Your task to perform on an android device: check the backup settings in the google photos Image 0: 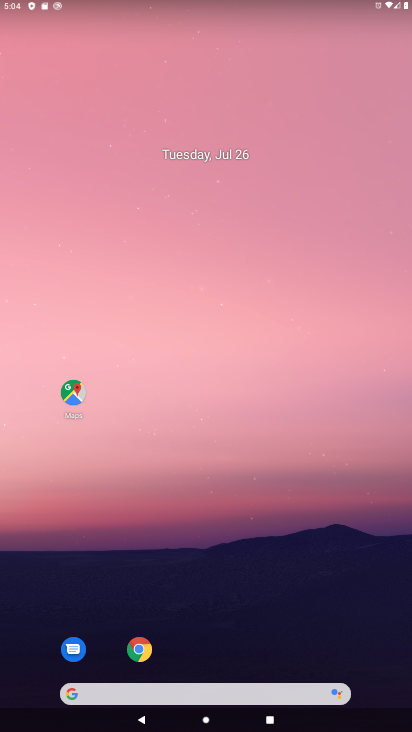
Step 0: drag from (266, 610) to (215, 171)
Your task to perform on an android device: check the backup settings in the google photos Image 1: 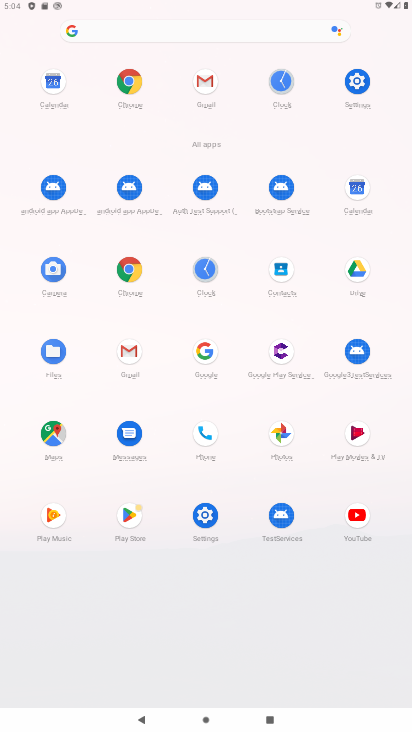
Step 1: click (284, 433)
Your task to perform on an android device: check the backup settings in the google photos Image 2: 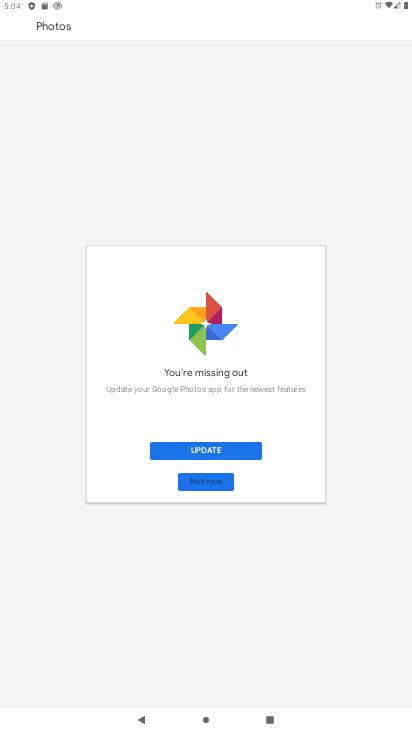
Step 2: click (220, 484)
Your task to perform on an android device: check the backup settings in the google photos Image 3: 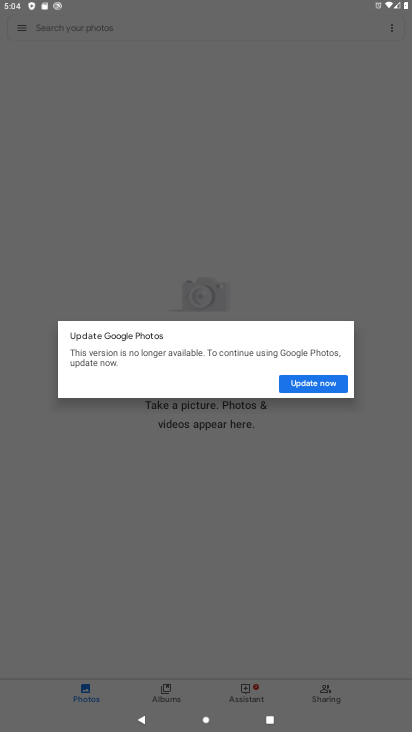
Step 3: click (319, 381)
Your task to perform on an android device: check the backup settings in the google photos Image 4: 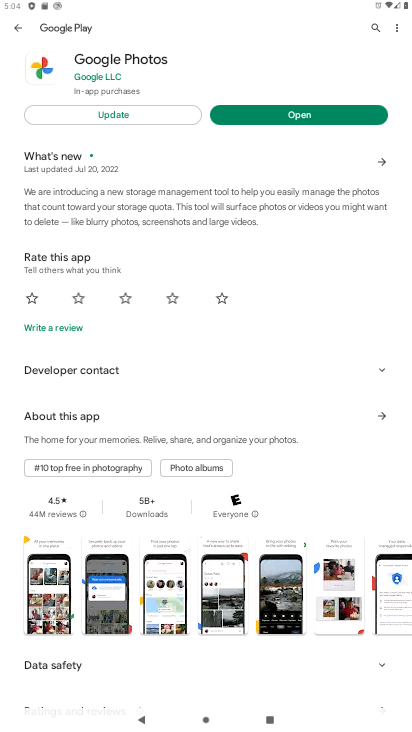
Step 4: click (139, 115)
Your task to perform on an android device: check the backup settings in the google photos Image 5: 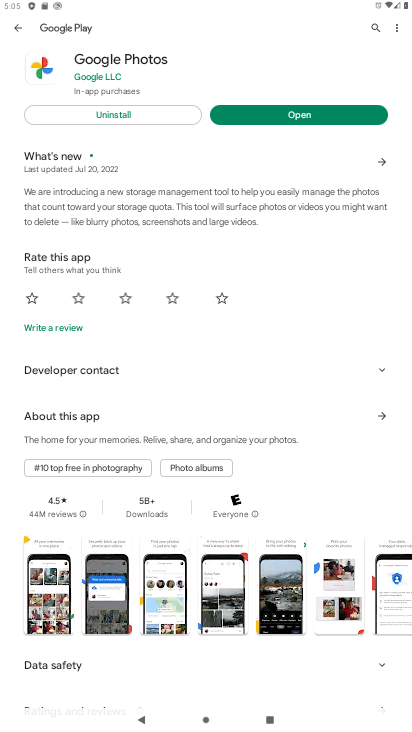
Step 5: click (320, 117)
Your task to perform on an android device: check the backup settings in the google photos Image 6: 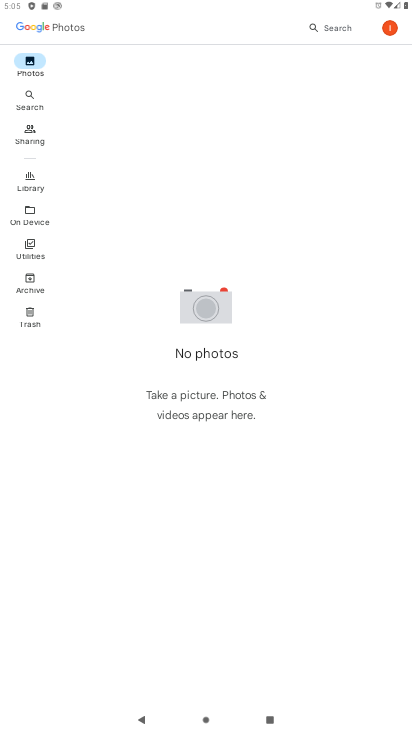
Step 6: click (394, 31)
Your task to perform on an android device: check the backup settings in the google photos Image 7: 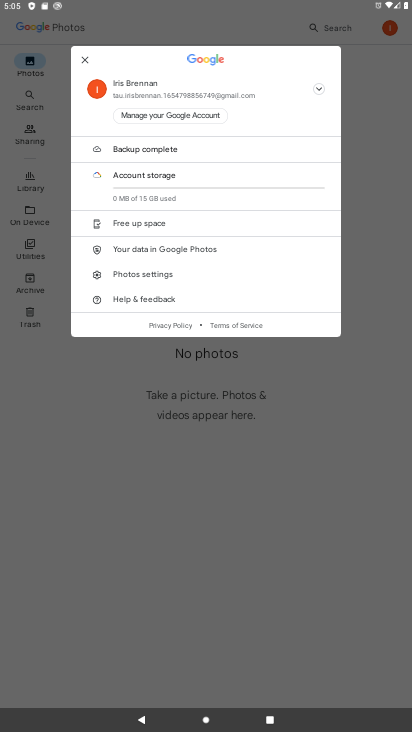
Step 7: click (168, 268)
Your task to perform on an android device: check the backup settings in the google photos Image 8: 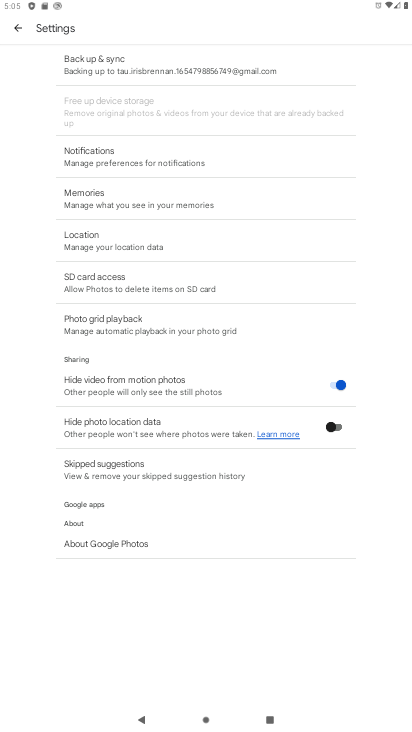
Step 8: click (101, 75)
Your task to perform on an android device: check the backup settings in the google photos Image 9: 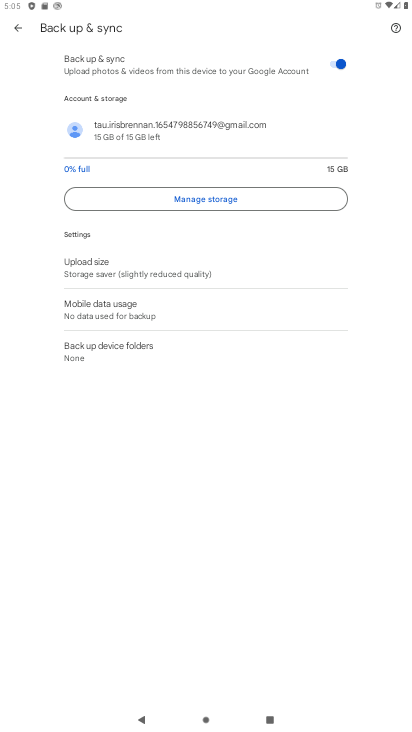
Step 9: task complete